Your task to perform on an android device: Open Yahoo.com Image 0: 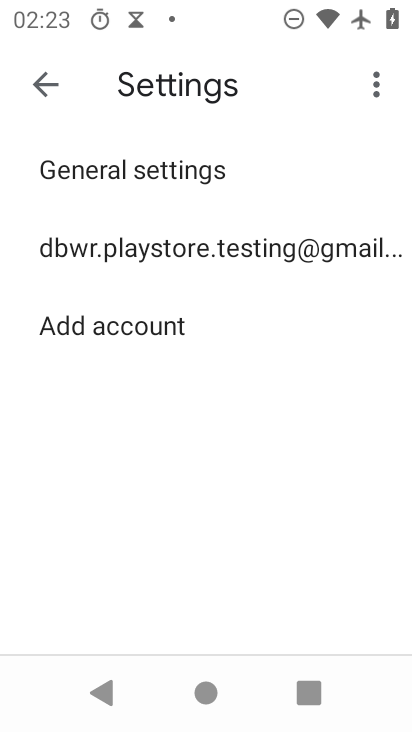
Step 0: press home button
Your task to perform on an android device: Open Yahoo.com Image 1: 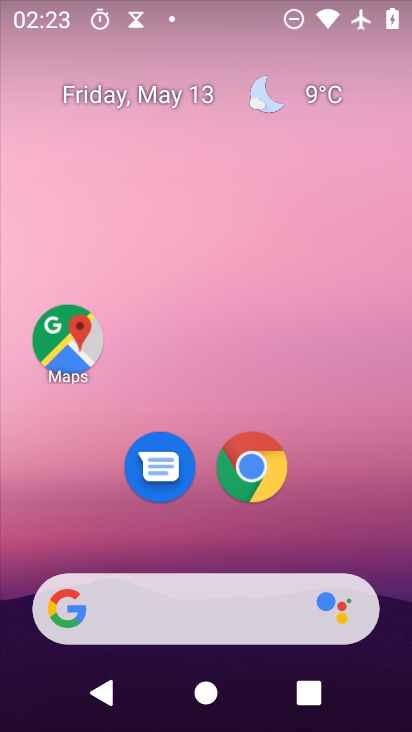
Step 1: click (268, 474)
Your task to perform on an android device: Open Yahoo.com Image 2: 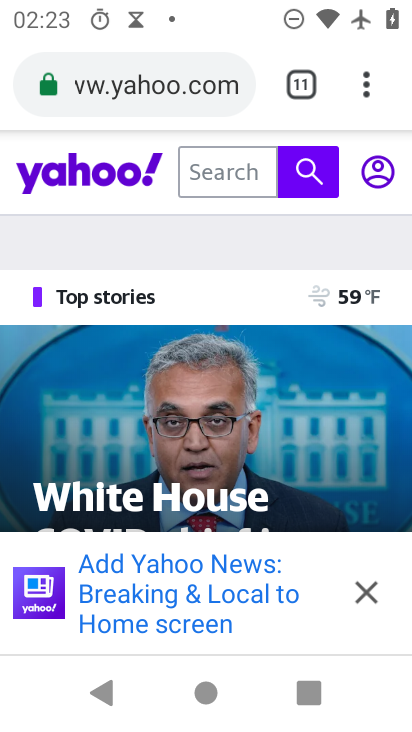
Step 2: task complete